Your task to perform on an android device: Open ESPN.com Image 0: 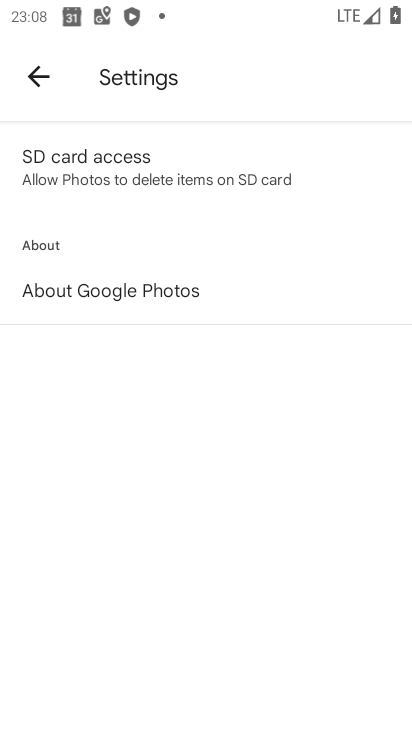
Step 0: press home button
Your task to perform on an android device: Open ESPN.com Image 1: 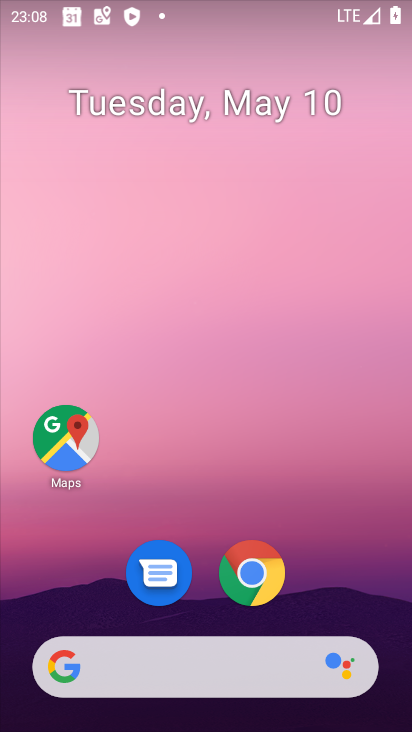
Step 1: click (250, 577)
Your task to perform on an android device: Open ESPN.com Image 2: 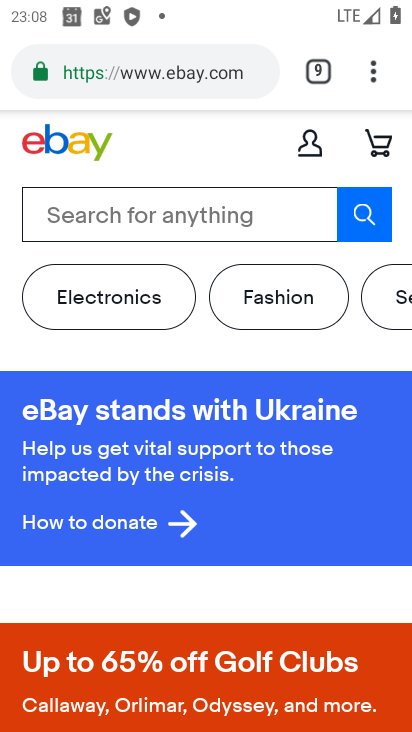
Step 2: click (376, 67)
Your task to perform on an android device: Open ESPN.com Image 3: 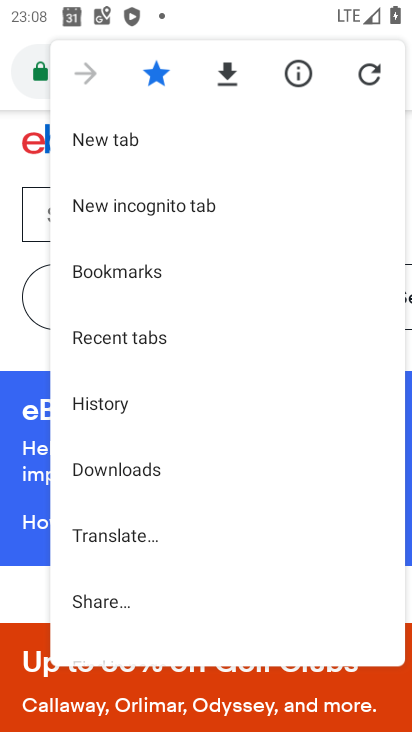
Step 3: click (123, 139)
Your task to perform on an android device: Open ESPN.com Image 4: 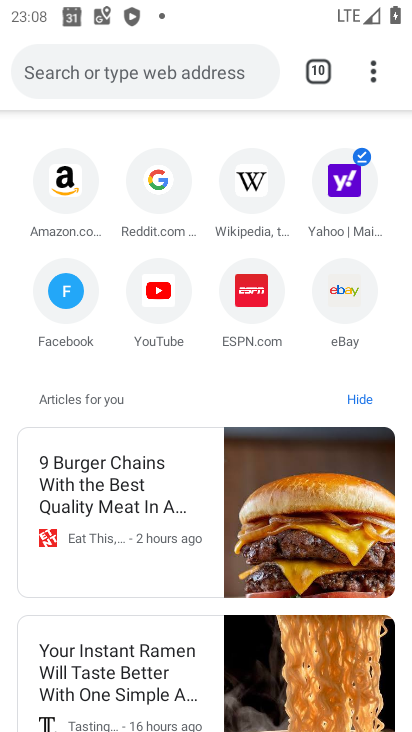
Step 4: click (245, 282)
Your task to perform on an android device: Open ESPN.com Image 5: 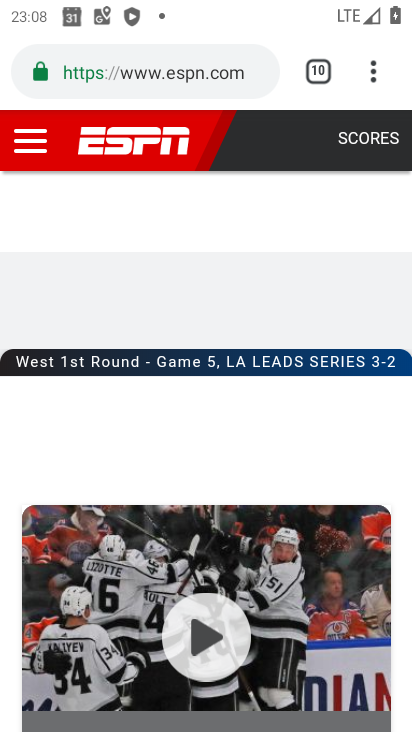
Step 5: task complete